Your task to perform on an android device: manage bookmarks in the chrome app Image 0: 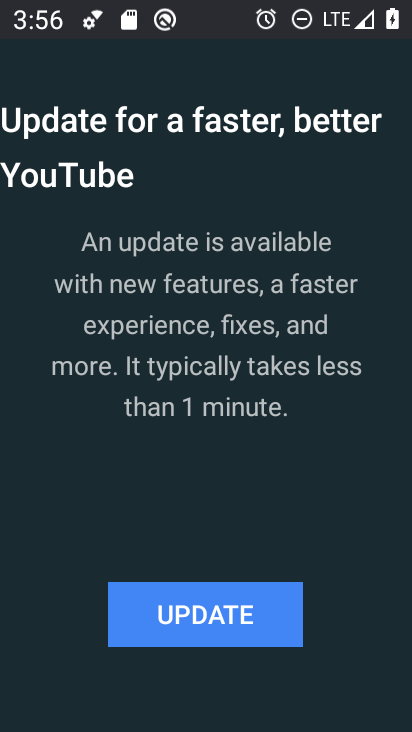
Step 0: press home button
Your task to perform on an android device: manage bookmarks in the chrome app Image 1: 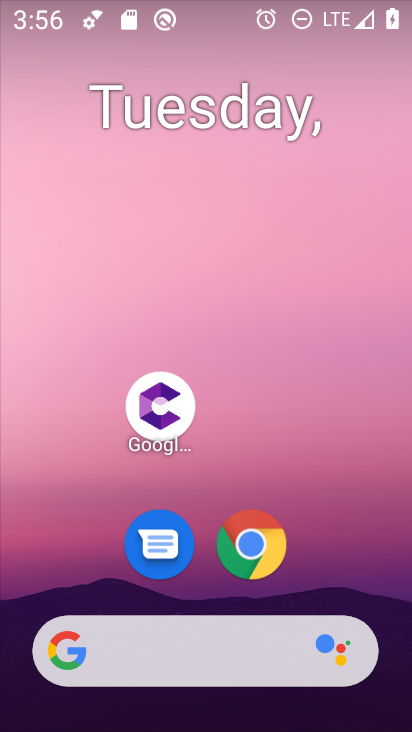
Step 1: drag from (331, 568) to (330, 130)
Your task to perform on an android device: manage bookmarks in the chrome app Image 2: 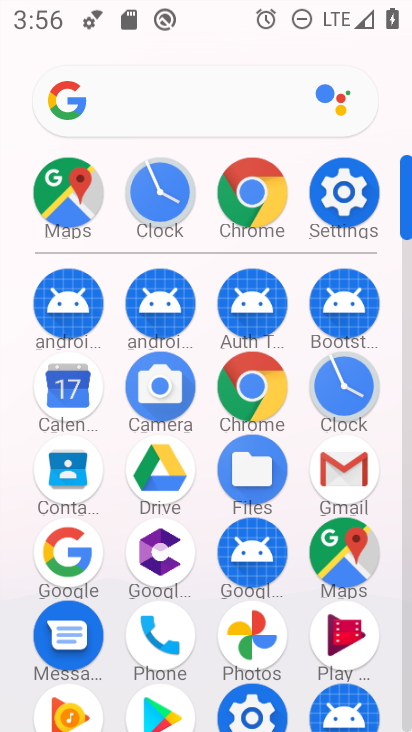
Step 2: click (262, 399)
Your task to perform on an android device: manage bookmarks in the chrome app Image 3: 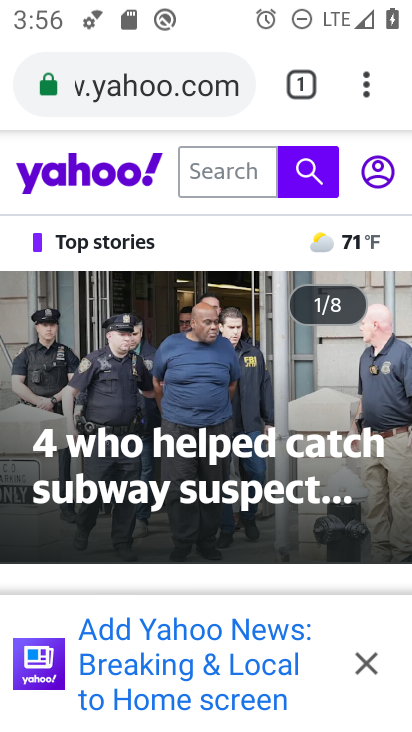
Step 3: click (371, 83)
Your task to perform on an android device: manage bookmarks in the chrome app Image 4: 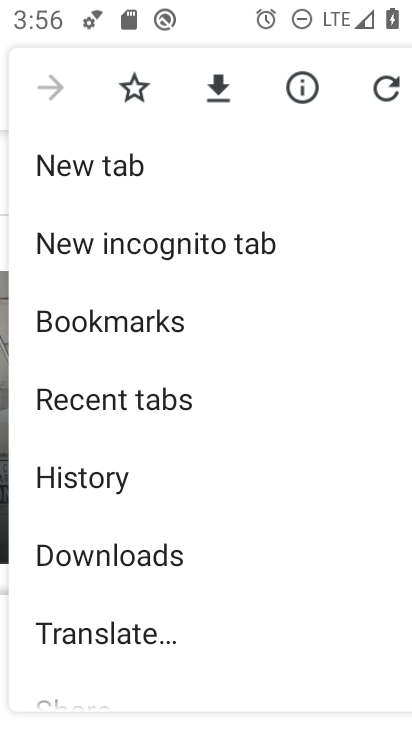
Step 4: drag from (293, 528) to (288, 374)
Your task to perform on an android device: manage bookmarks in the chrome app Image 5: 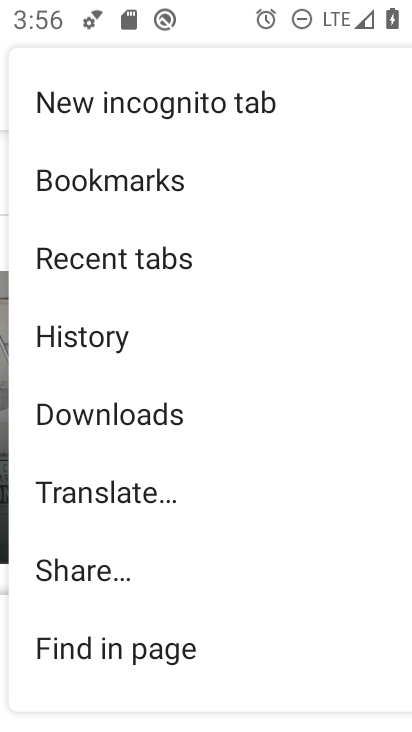
Step 5: drag from (266, 595) to (273, 411)
Your task to perform on an android device: manage bookmarks in the chrome app Image 6: 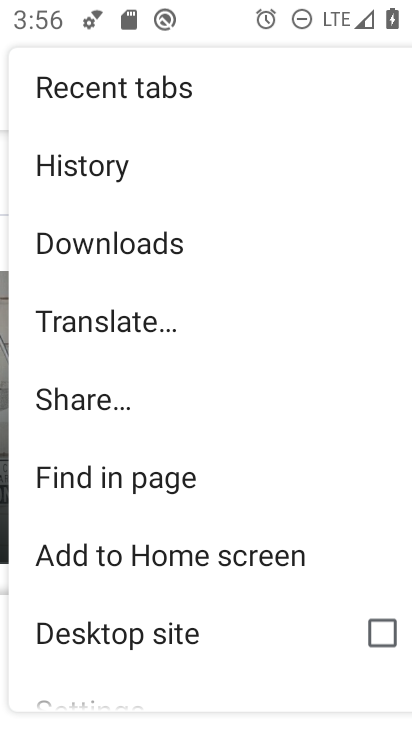
Step 6: drag from (249, 613) to (261, 430)
Your task to perform on an android device: manage bookmarks in the chrome app Image 7: 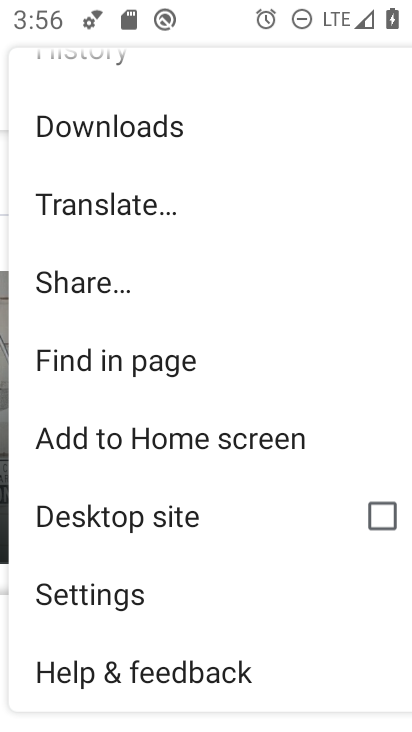
Step 7: drag from (259, 601) to (262, 409)
Your task to perform on an android device: manage bookmarks in the chrome app Image 8: 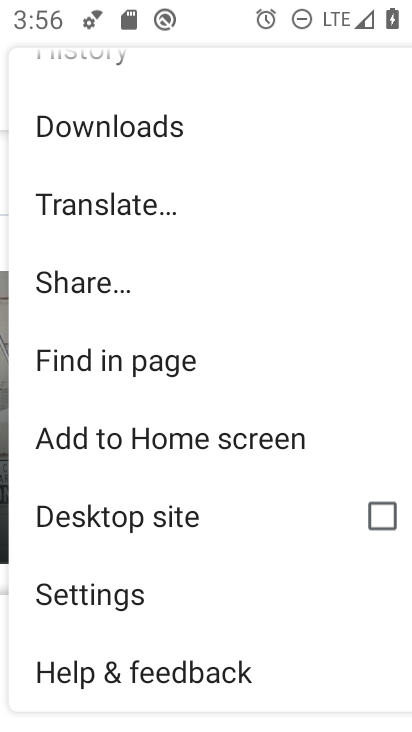
Step 8: drag from (252, 269) to (246, 423)
Your task to perform on an android device: manage bookmarks in the chrome app Image 9: 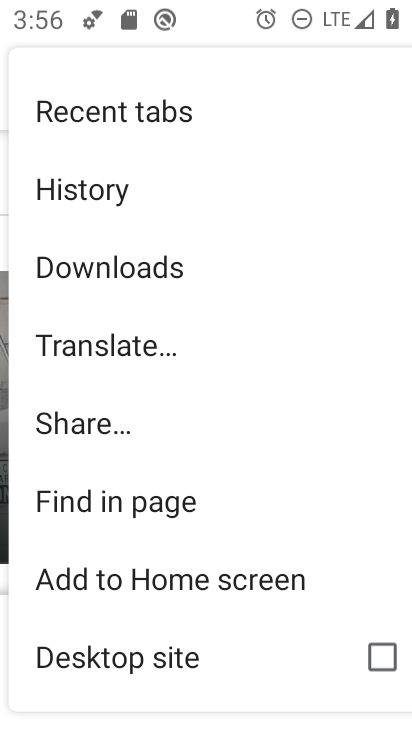
Step 9: drag from (269, 289) to (268, 420)
Your task to perform on an android device: manage bookmarks in the chrome app Image 10: 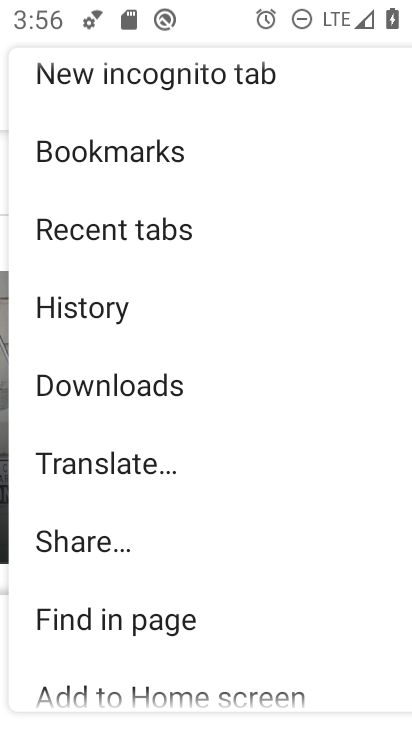
Step 10: drag from (270, 338) to (246, 494)
Your task to perform on an android device: manage bookmarks in the chrome app Image 11: 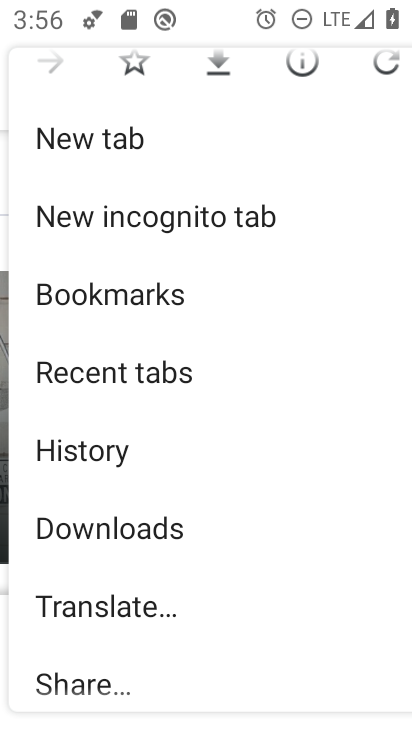
Step 11: click (137, 285)
Your task to perform on an android device: manage bookmarks in the chrome app Image 12: 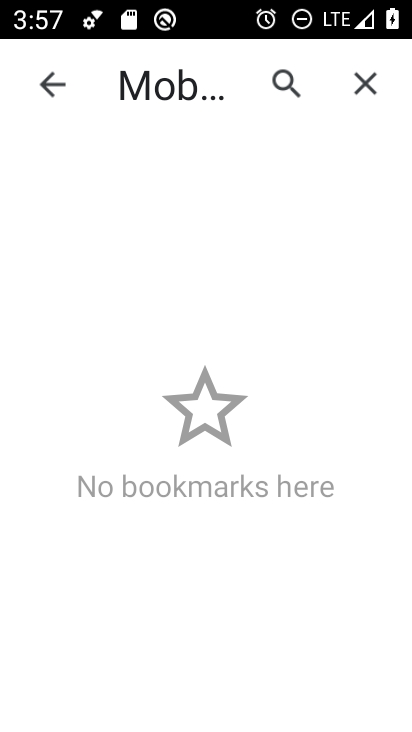
Step 12: task complete